Your task to perform on an android device: Open the stopwatch Image 0: 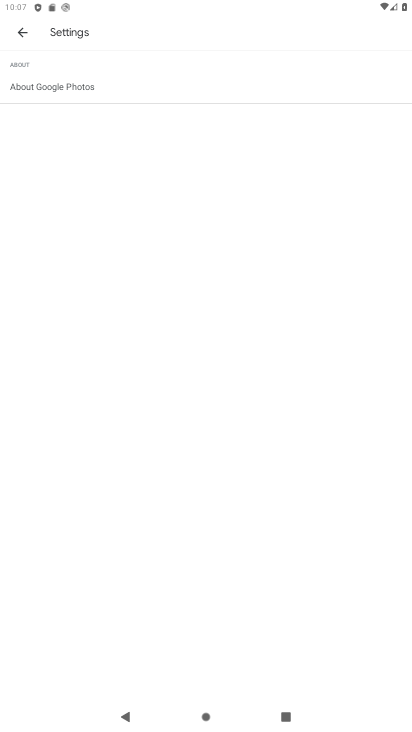
Step 0: press home button
Your task to perform on an android device: Open the stopwatch Image 1: 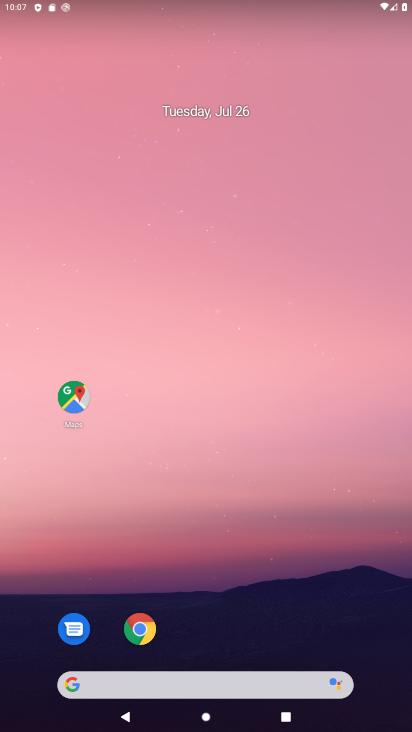
Step 1: drag from (344, 633) to (273, 232)
Your task to perform on an android device: Open the stopwatch Image 2: 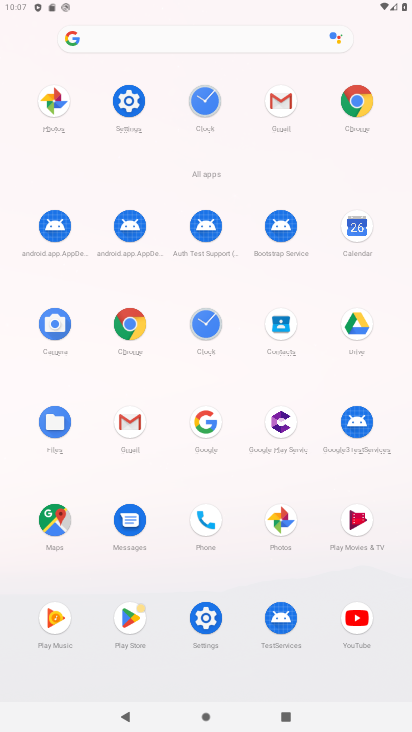
Step 2: click (134, 125)
Your task to perform on an android device: Open the stopwatch Image 3: 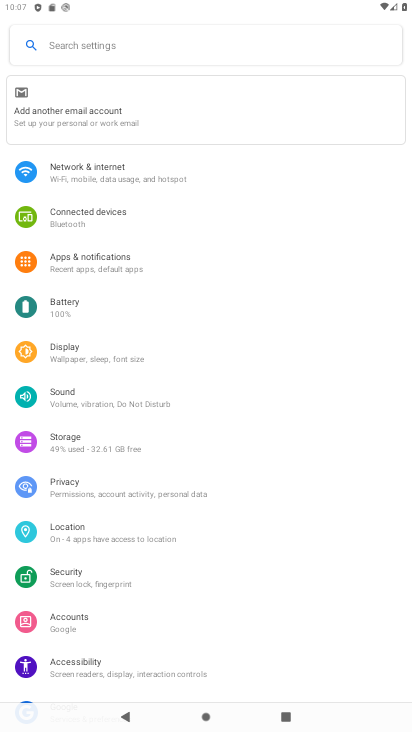
Step 3: press home button
Your task to perform on an android device: Open the stopwatch Image 4: 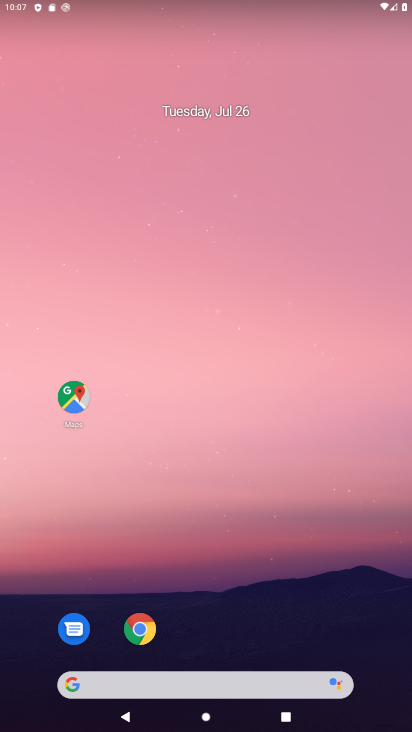
Step 4: drag from (296, 629) to (295, 236)
Your task to perform on an android device: Open the stopwatch Image 5: 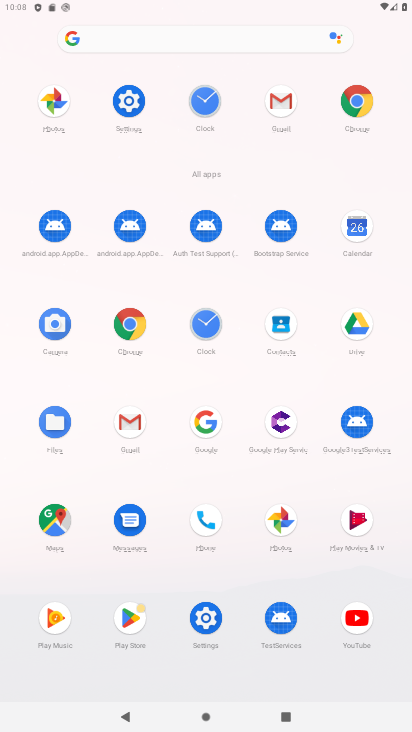
Step 5: click (178, 128)
Your task to perform on an android device: Open the stopwatch Image 6: 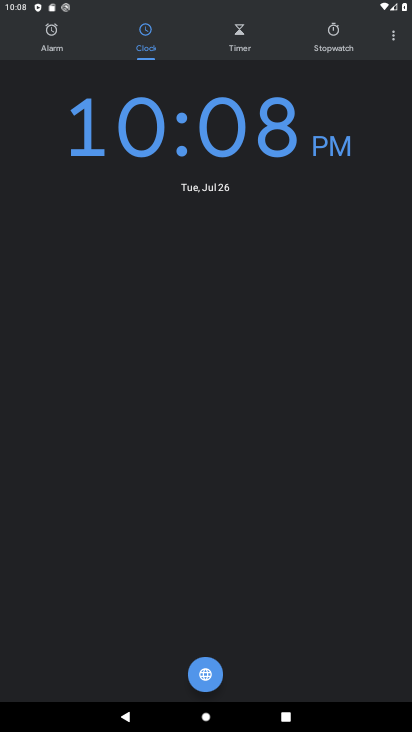
Step 6: task complete